Your task to perform on an android device: Go to Wikipedia Image 0: 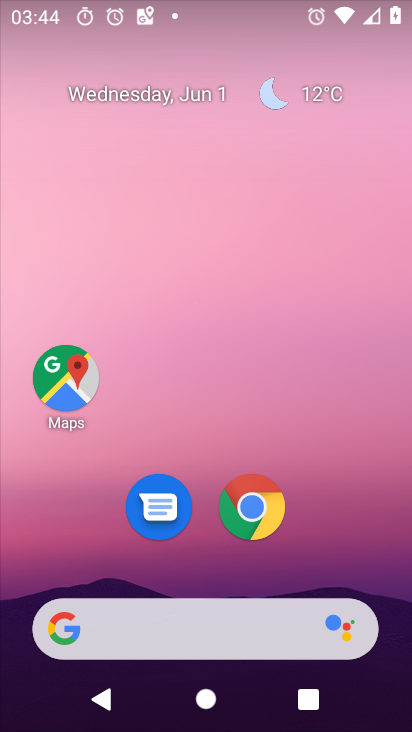
Step 0: click (252, 516)
Your task to perform on an android device: Go to Wikipedia Image 1: 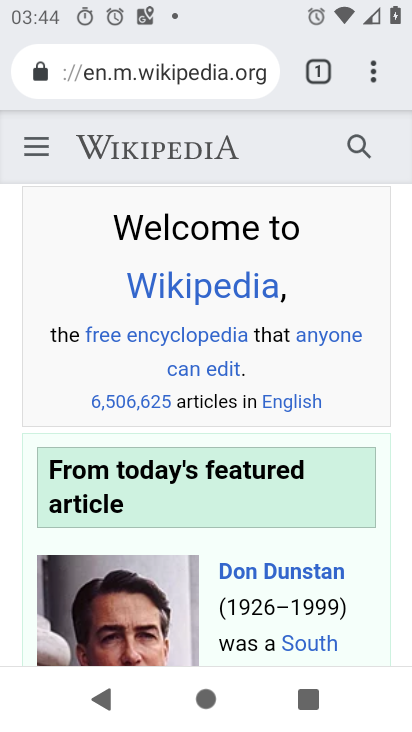
Step 1: task complete